Your task to perform on an android device: Search for usb-c on target.com, select the first entry, add it to the cart, then select checkout. Image 0: 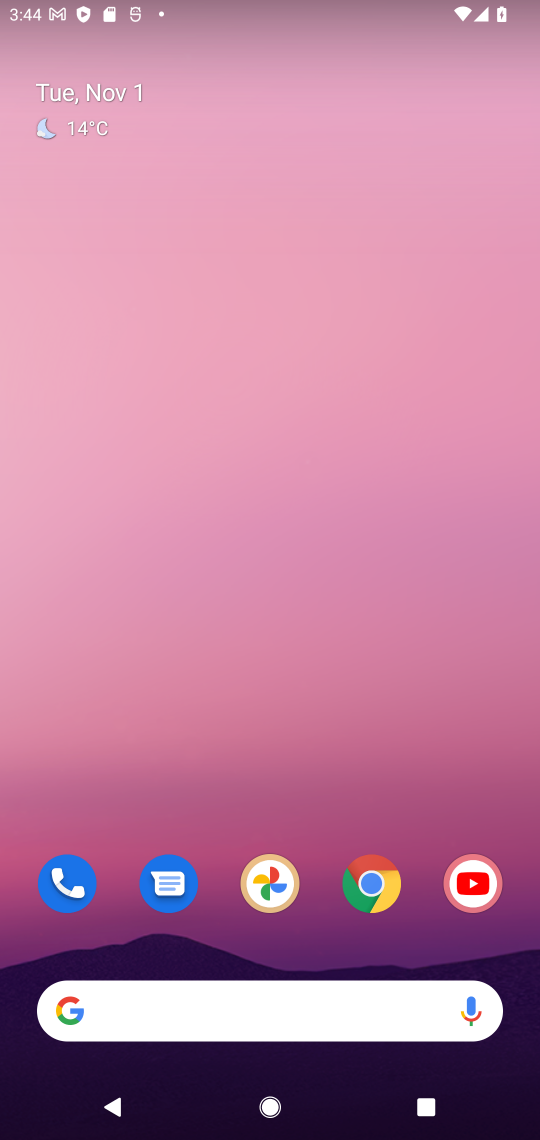
Step 0: click (357, 872)
Your task to perform on an android device: Search for usb-c on target.com, select the first entry, add it to the cart, then select checkout. Image 1: 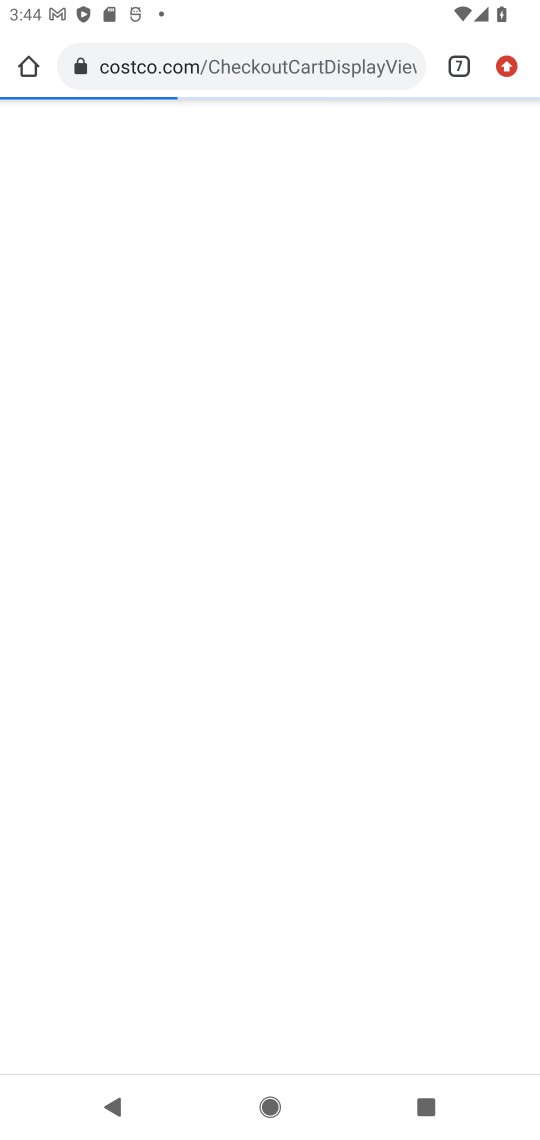
Step 1: click (464, 67)
Your task to perform on an android device: Search for usb-c on target.com, select the first entry, add it to the cart, then select checkout. Image 2: 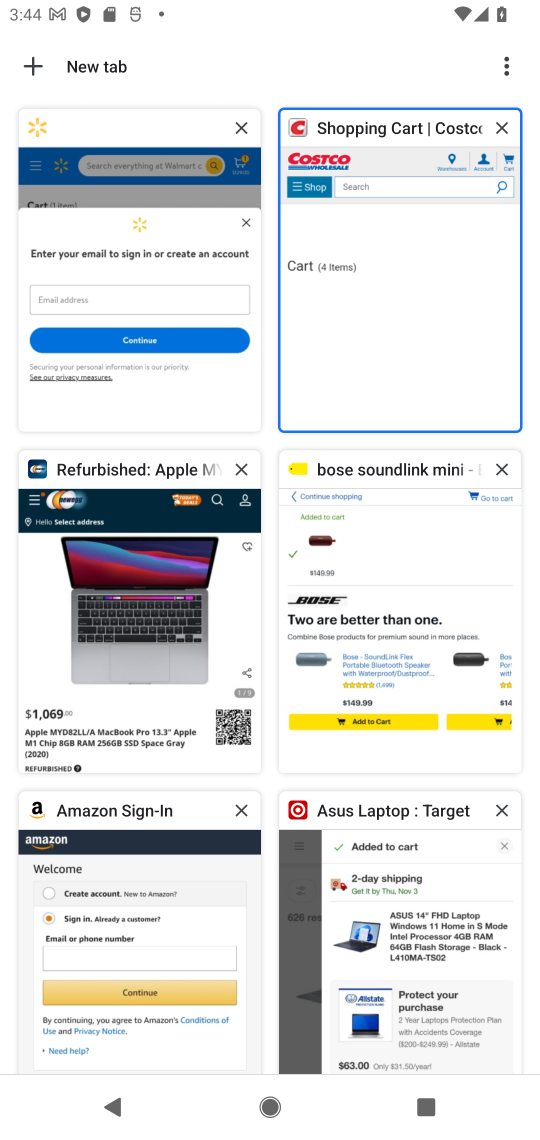
Step 2: click (343, 871)
Your task to perform on an android device: Search for usb-c on target.com, select the first entry, add it to the cart, then select checkout. Image 3: 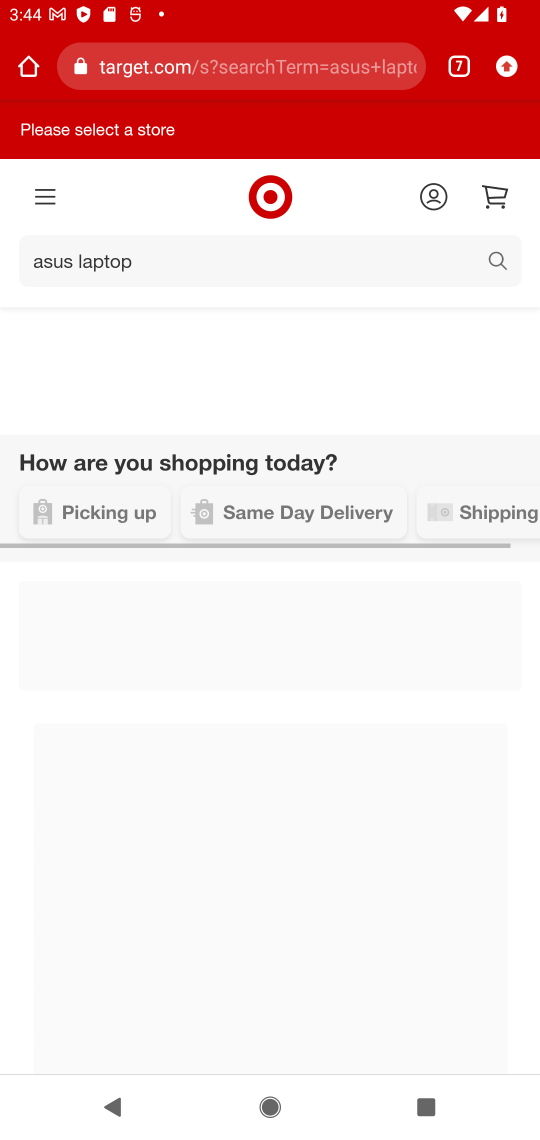
Step 3: click (377, 258)
Your task to perform on an android device: Search for usb-c on target.com, select the first entry, add it to the cart, then select checkout. Image 4: 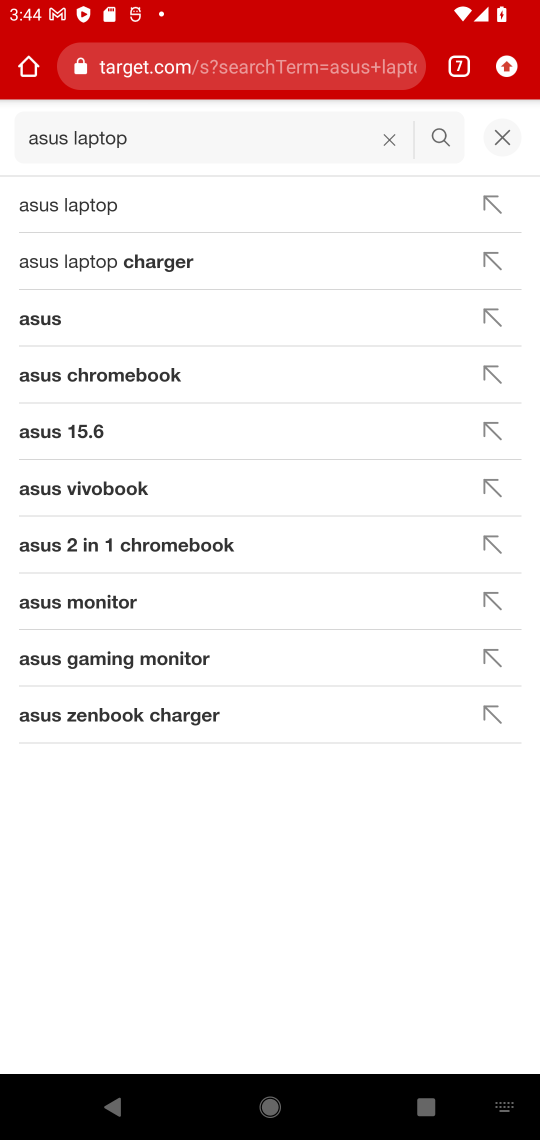
Step 4: click (382, 143)
Your task to perform on an android device: Search for usb-c on target.com, select the first entry, add it to the cart, then select checkout. Image 5: 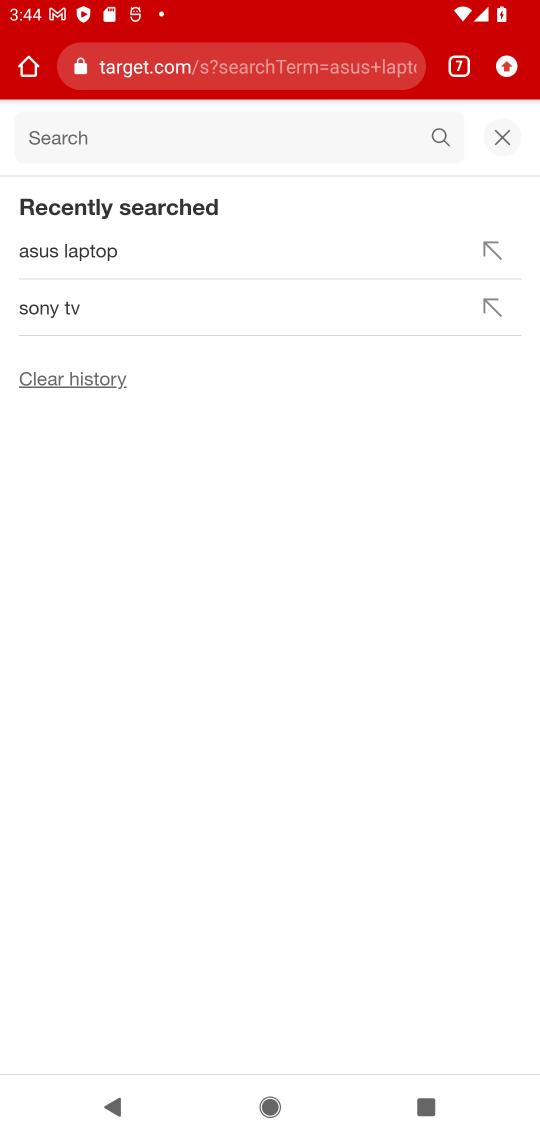
Step 5: type "usb-c"
Your task to perform on an android device: Search for usb-c on target.com, select the first entry, add it to the cart, then select checkout. Image 6: 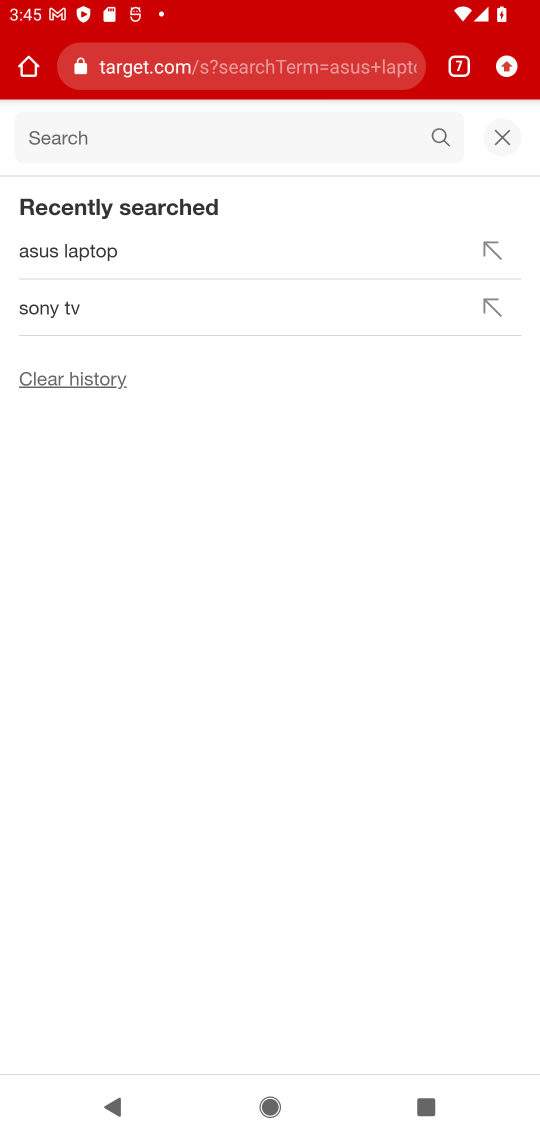
Step 6: click (131, 147)
Your task to perform on an android device: Search for usb-c on target.com, select the first entry, add it to the cart, then select checkout. Image 7: 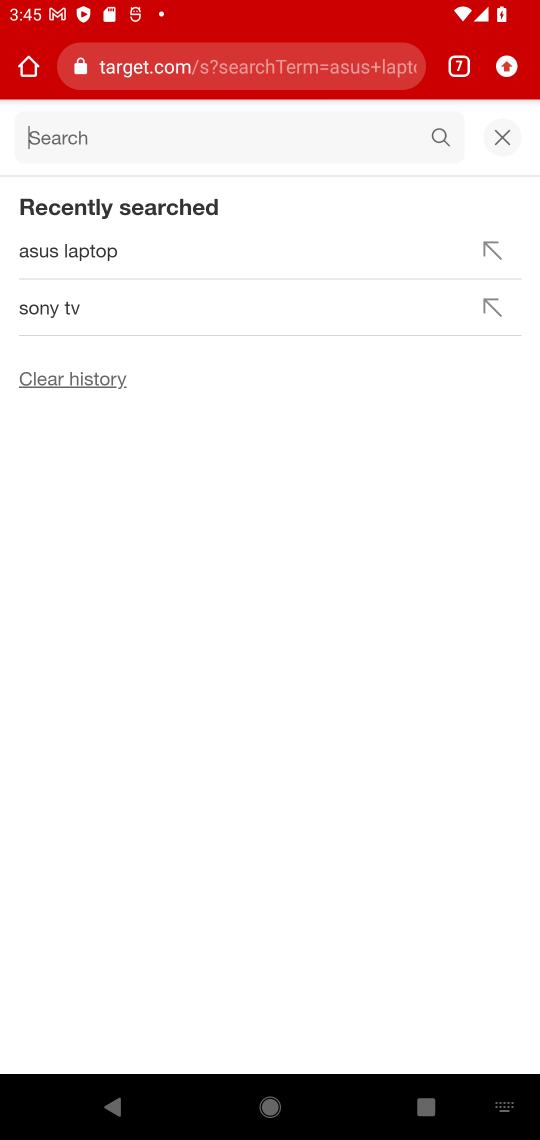
Step 7: type "usb-c"
Your task to perform on an android device: Search for usb-c on target.com, select the first entry, add it to the cart, then select checkout. Image 8: 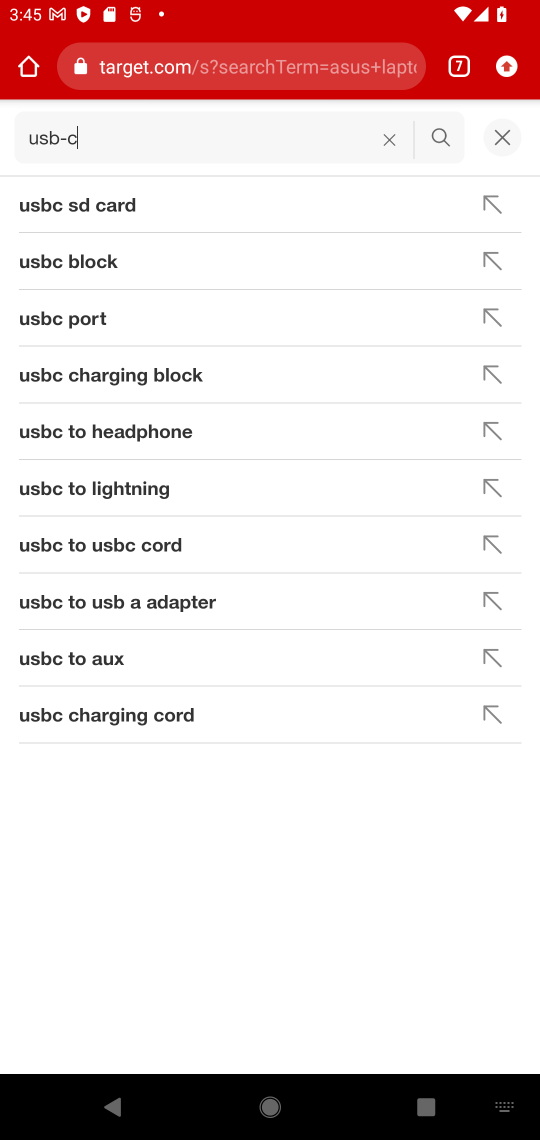
Step 8: click (86, 208)
Your task to perform on an android device: Search for usb-c on target.com, select the first entry, add it to the cart, then select checkout. Image 9: 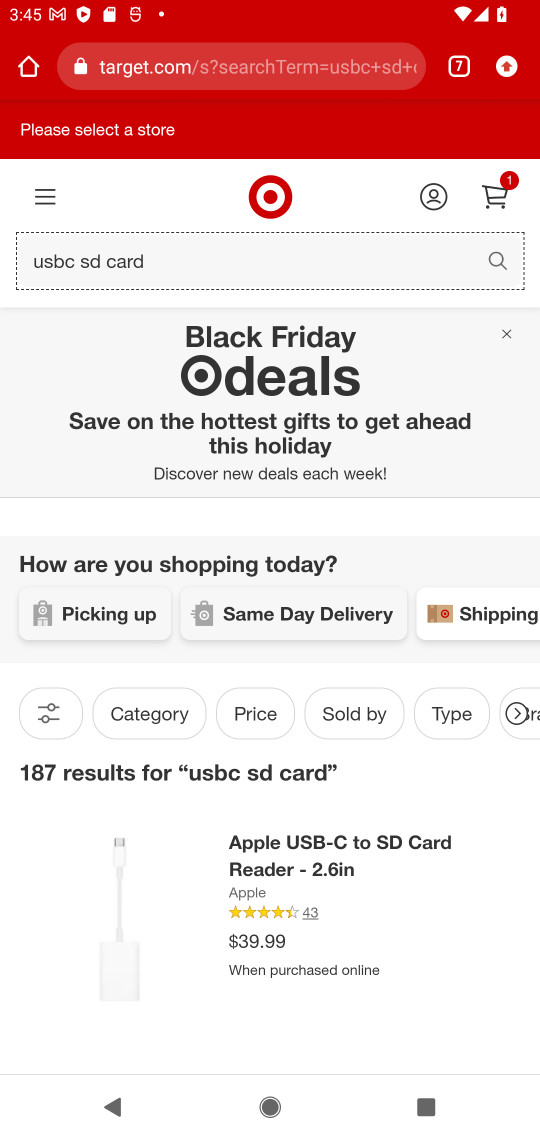
Step 9: drag from (376, 1009) to (406, 318)
Your task to perform on an android device: Search for usb-c on target.com, select the first entry, add it to the cart, then select checkout. Image 10: 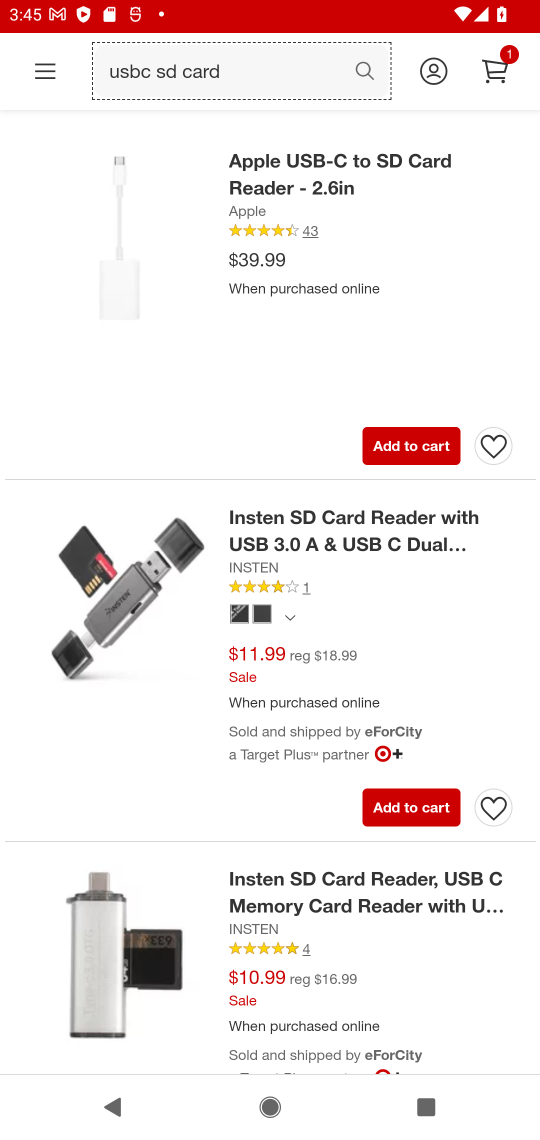
Step 10: click (408, 441)
Your task to perform on an android device: Search for usb-c on target.com, select the first entry, add it to the cart, then select checkout. Image 11: 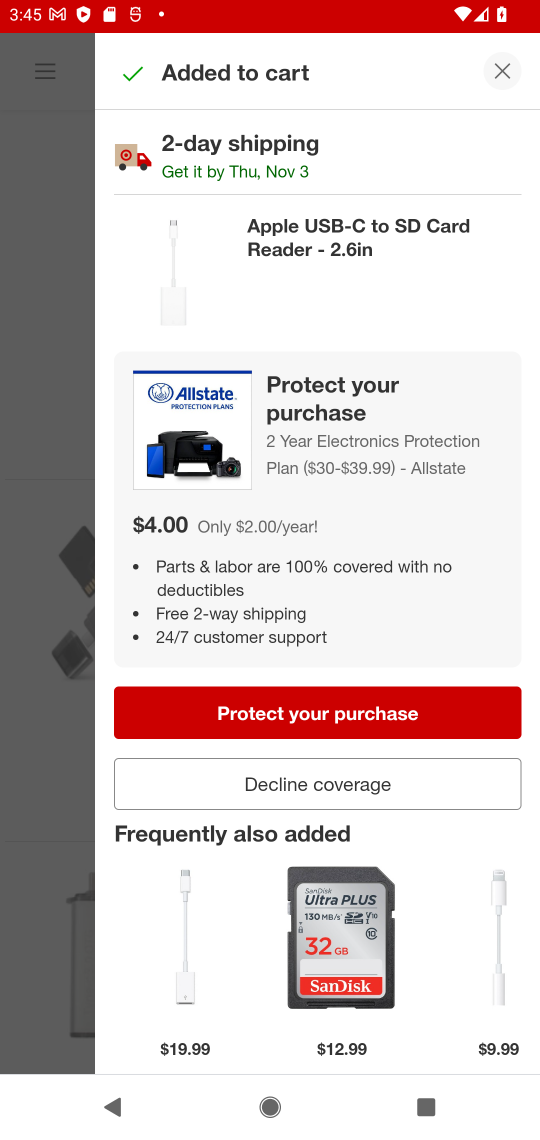
Step 11: click (330, 791)
Your task to perform on an android device: Search for usb-c on target.com, select the first entry, add it to the cart, then select checkout. Image 12: 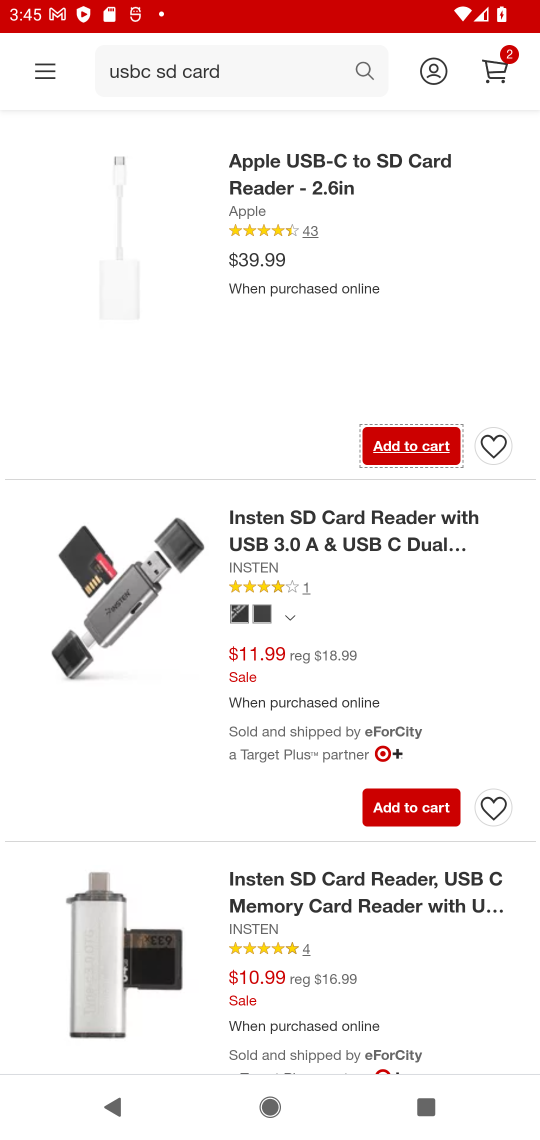
Step 12: click (495, 67)
Your task to perform on an android device: Search for usb-c on target.com, select the first entry, add it to the cart, then select checkout. Image 13: 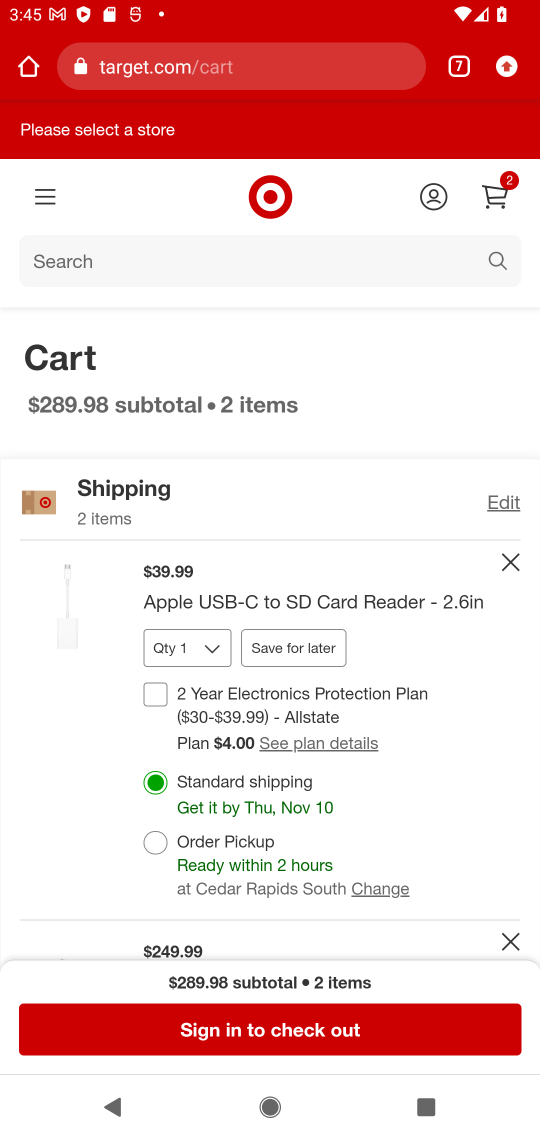
Step 13: click (262, 1034)
Your task to perform on an android device: Search for usb-c on target.com, select the first entry, add it to the cart, then select checkout. Image 14: 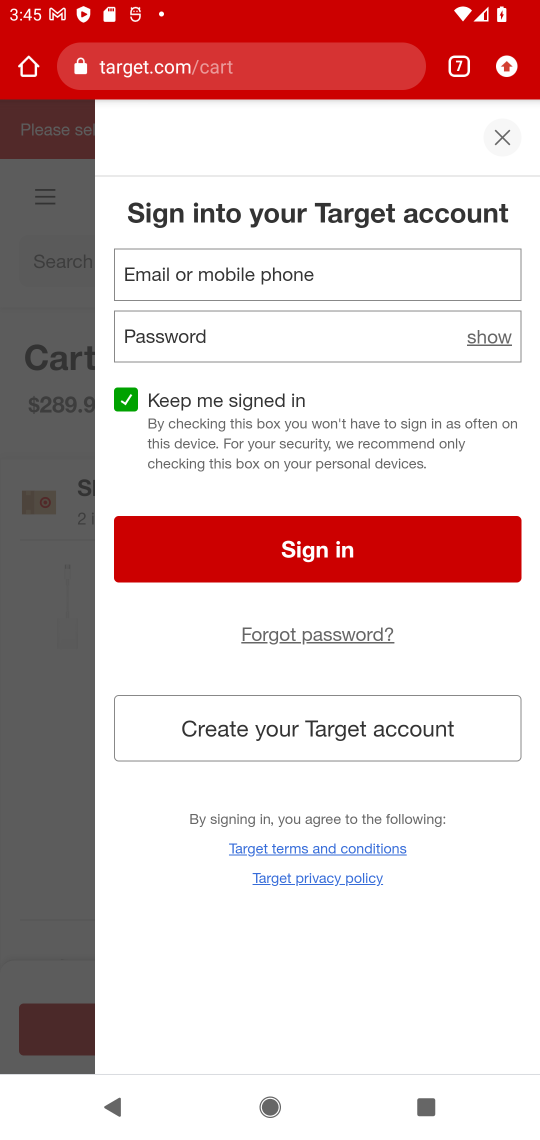
Step 14: task complete